Your task to perform on an android device: turn off translation in the chrome app Image 0: 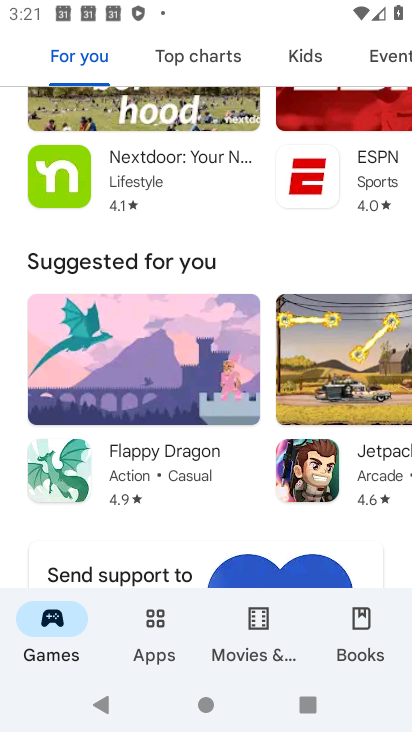
Step 0: drag from (176, 495) to (196, 279)
Your task to perform on an android device: turn off translation in the chrome app Image 1: 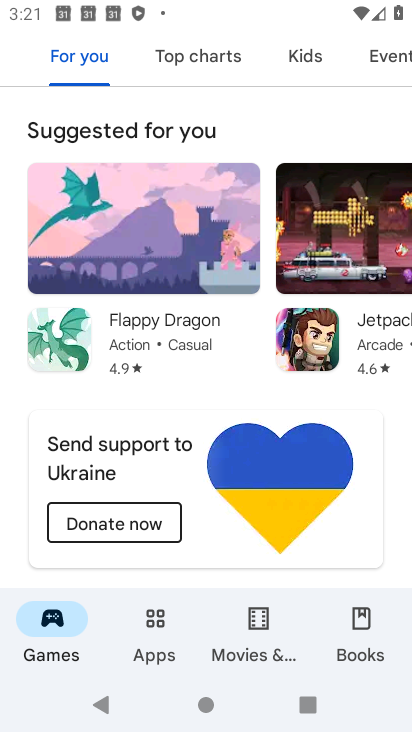
Step 1: press home button
Your task to perform on an android device: turn off translation in the chrome app Image 2: 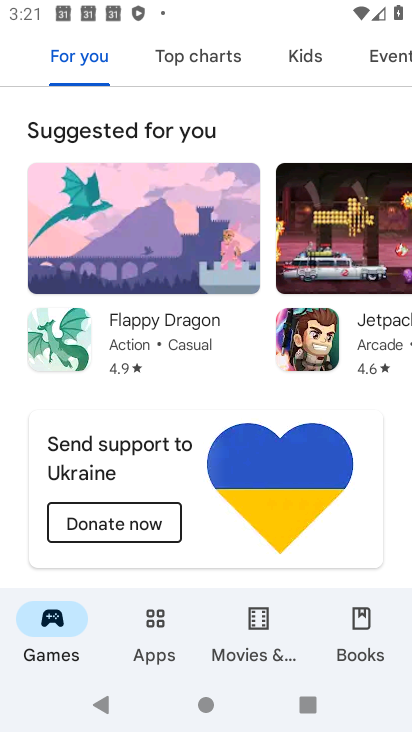
Step 2: press home button
Your task to perform on an android device: turn off translation in the chrome app Image 3: 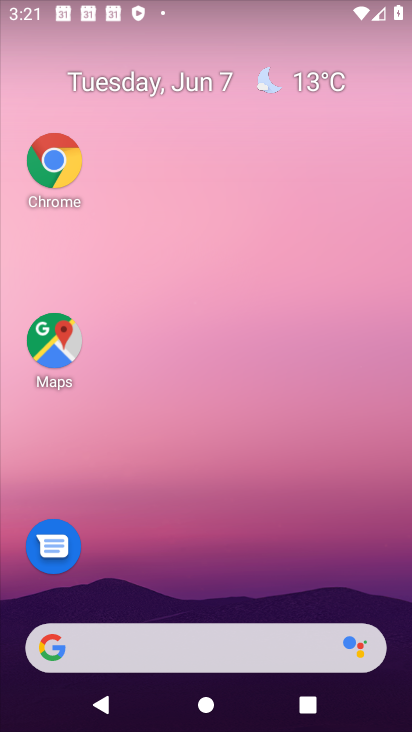
Step 3: click (53, 162)
Your task to perform on an android device: turn off translation in the chrome app Image 4: 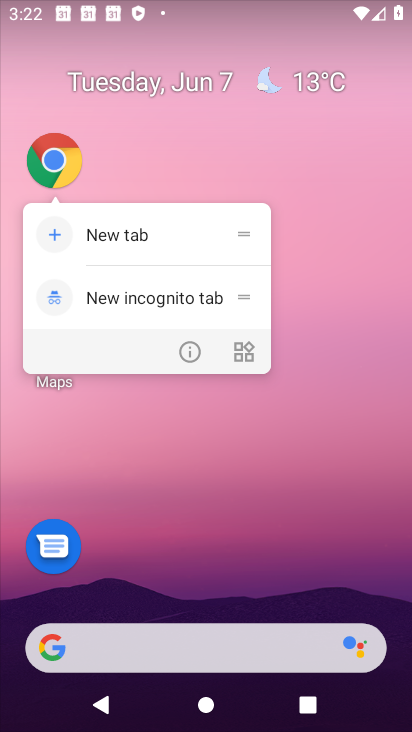
Step 4: click (185, 354)
Your task to perform on an android device: turn off translation in the chrome app Image 5: 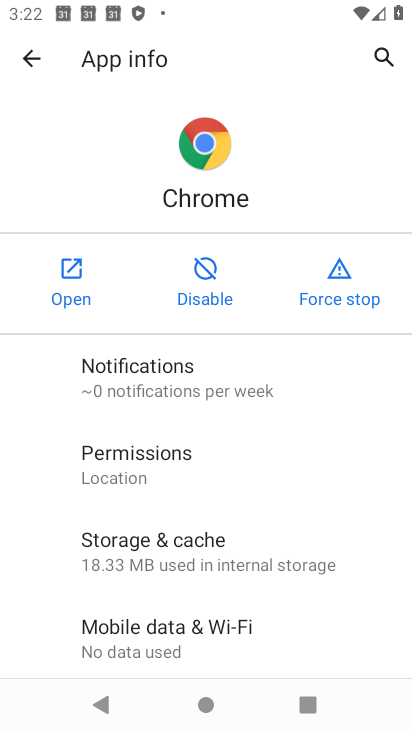
Step 5: click (66, 256)
Your task to perform on an android device: turn off translation in the chrome app Image 6: 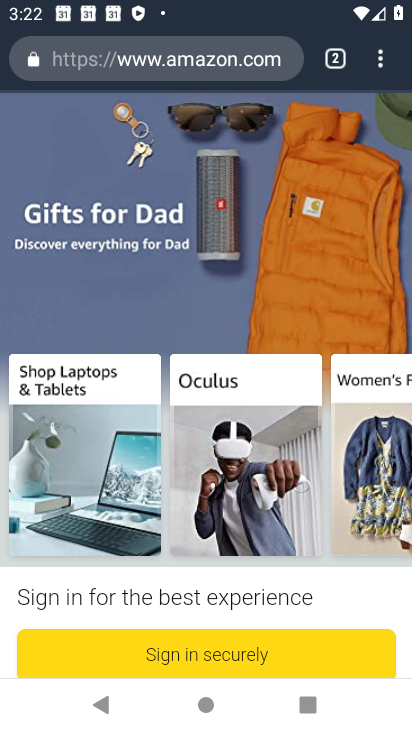
Step 6: drag from (239, 582) to (245, 350)
Your task to perform on an android device: turn off translation in the chrome app Image 7: 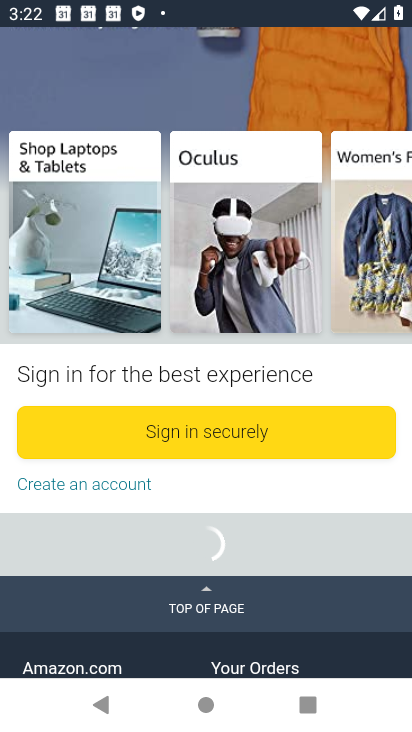
Step 7: drag from (367, 178) to (324, 641)
Your task to perform on an android device: turn off translation in the chrome app Image 8: 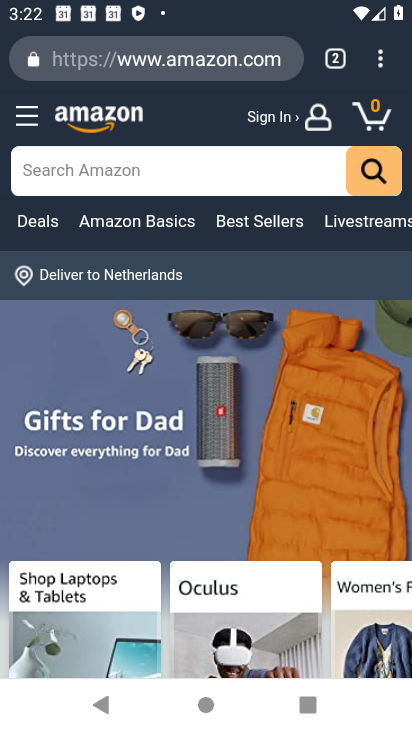
Step 8: click (375, 49)
Your task to perform on an android device: turn off translation in the chrome app Image 9: 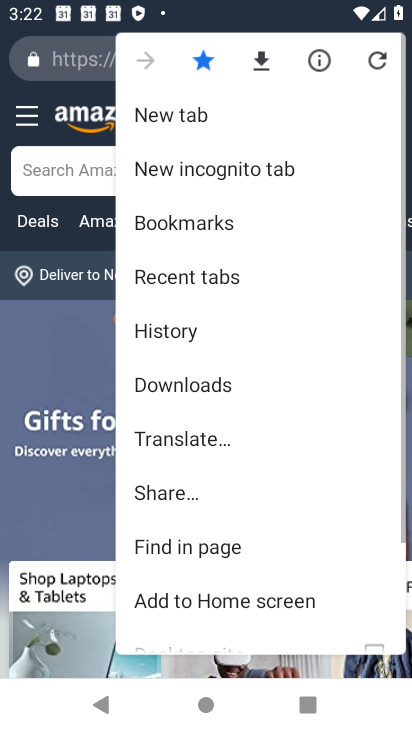
Step 9: drag from (219, 502) to (290, 193)
Your task to perform on an android device: turn off translation in the chrome app Image 10: 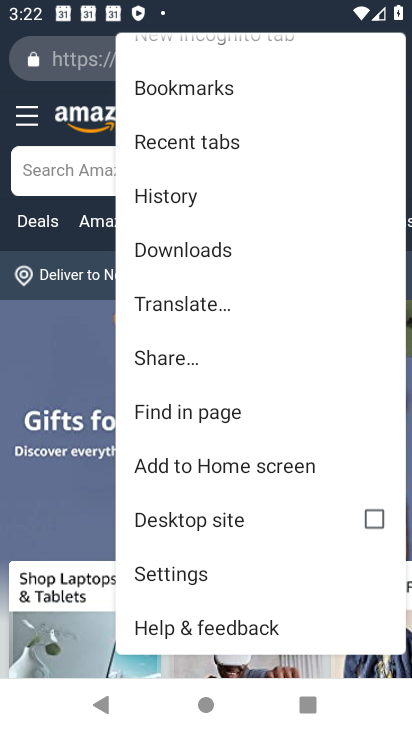
Step 10: click (219, 584)
Your task to perform on an android device: turn off translation in the chrome app Image 11: 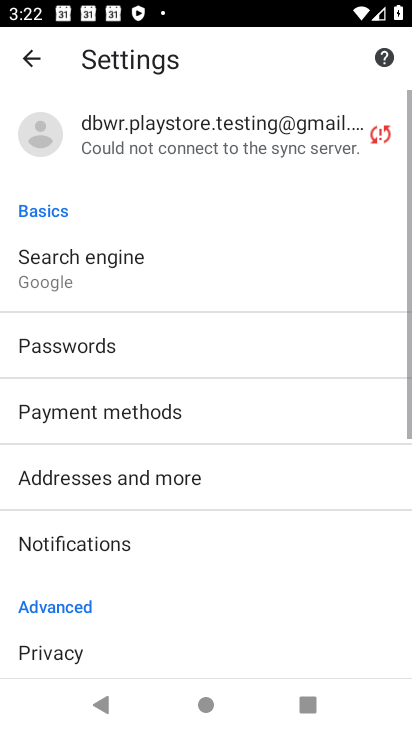
Step 11: drag from (161, 551) to (230, 268)
Your task to perform on an android device: turn off translation in the chrome app Image 12: 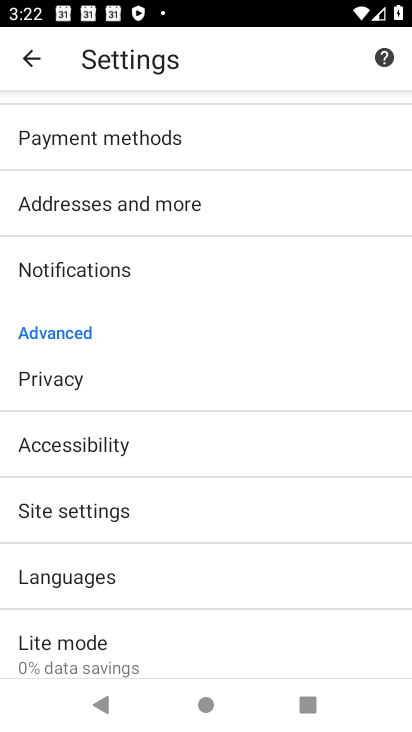
Step 12: click (135, 563)
Your task to perform on an android device: turn off translation in the chrome app Image 13: 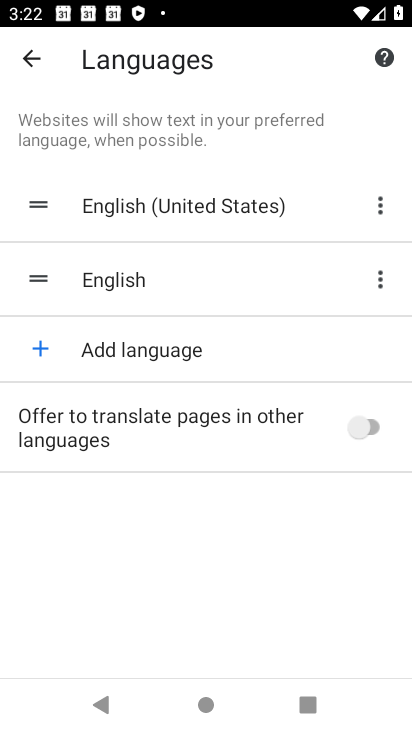
Step 13: click (330, 435)
Your task to perform on an android device: turn off translation in the chrome app Image 14: 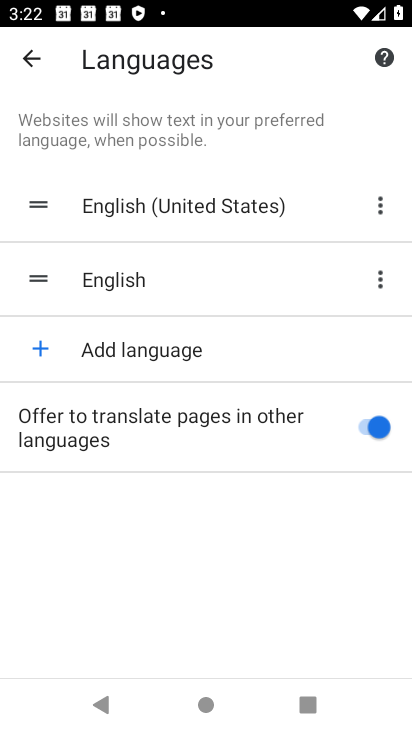
Step 14: click (328, 435)
Your task to perform on an android device: turn off translation in the chrome app Image 15: 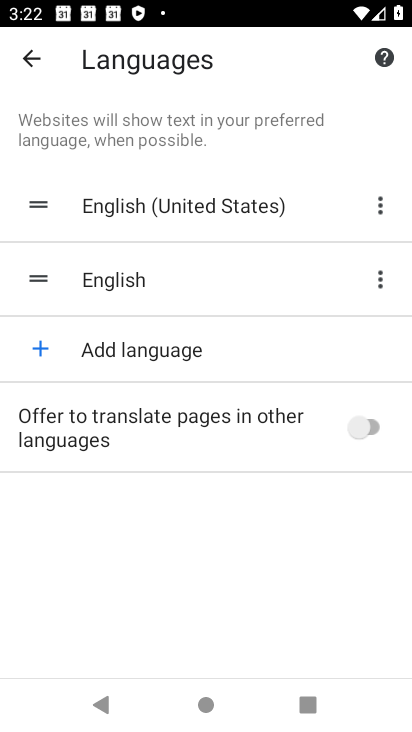
Step 15: task complete